Your task to perform on an android device: all mails in gmail Image 0: 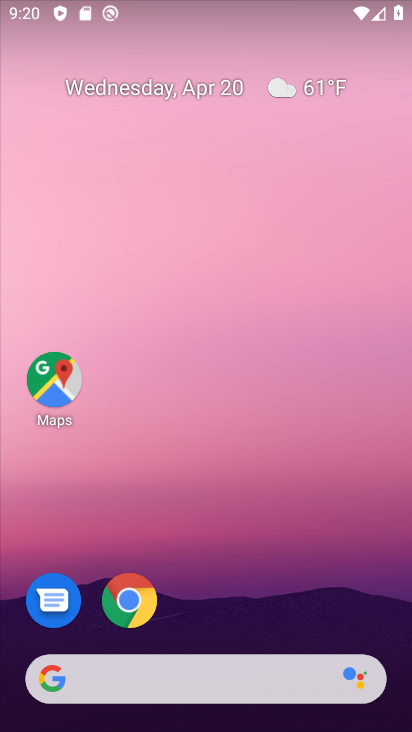
Step 0: drag from (379, 625) to (394, 8)
Your task to perform on an android device: all mails in gmail Image 1: 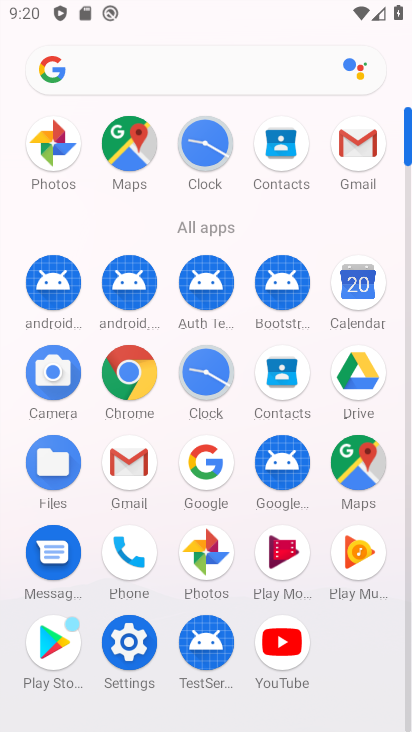
Step 1: click (350, 138)
Your task to perform on an android device: all mails in gmail Image 2: 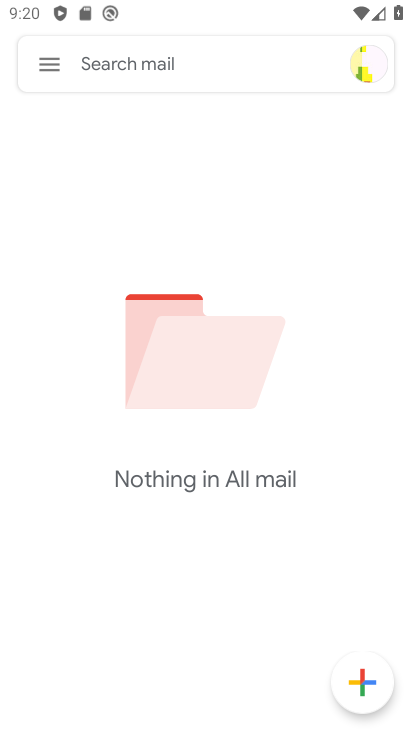
Step 2: task complete